Your task to perform on an android device: Go to eBay Image 0: 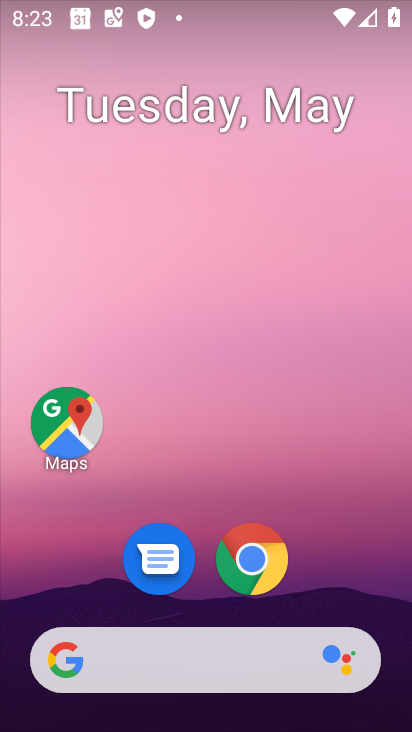
Step 0: drag from (208, 606) to (326, 25)
Your task to perform on an android device: Go to eBay Image 1: 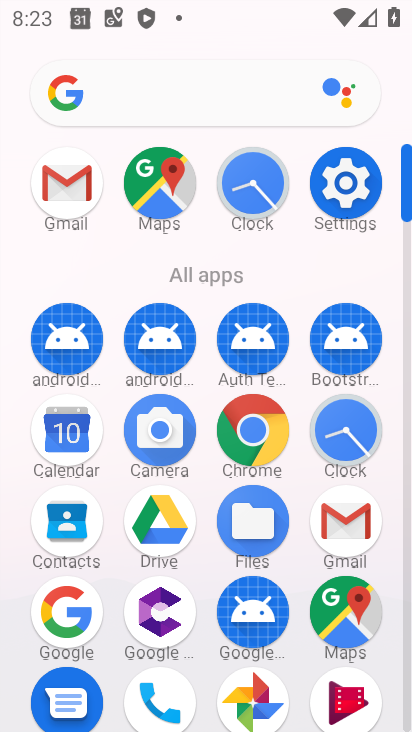
Step 1: click (140, 99)
Your task to perform on an android device: Go to eBay Image 2: 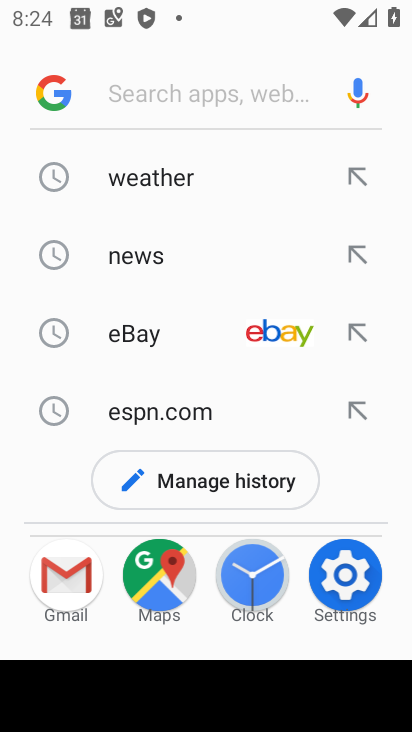
Step 2: click (120, 332)
Your task to perform on an android device: Go to eBay Image 3: 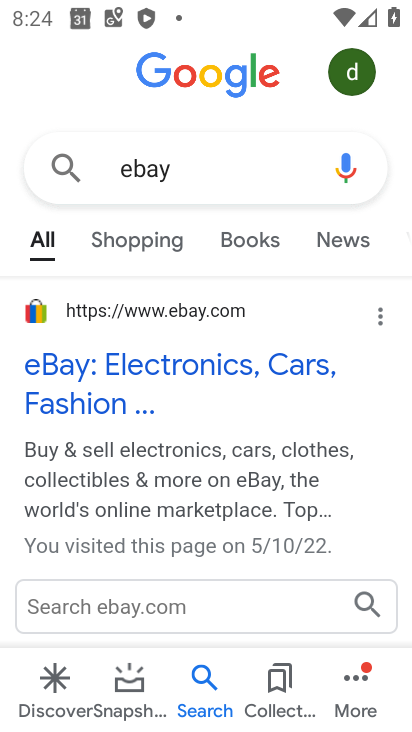
Step 3: click (52, 368)
Your task to perform on an android device: Go to eBay Image 4: 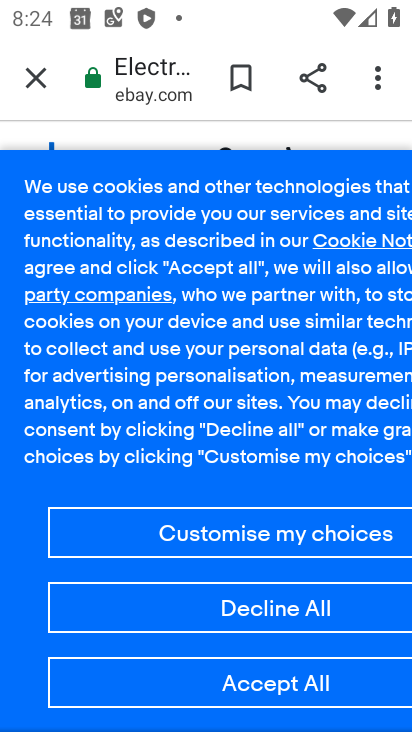
Step 4: task complete